Your task to perform on an android device: allow cookies in the chrome app Image 0: 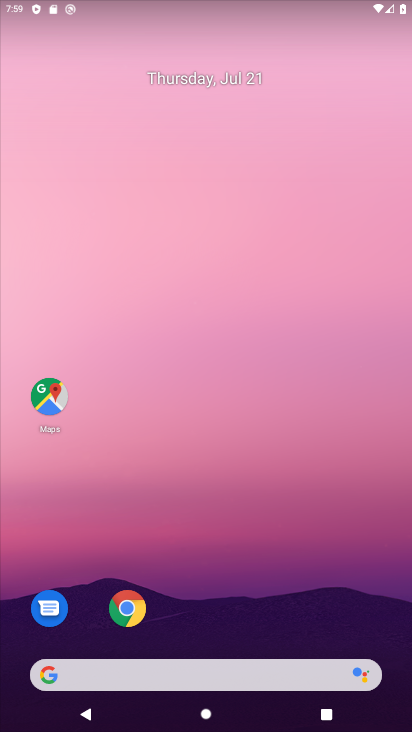
Step 0: click (145, 610)
Your task to perform on an android device: allow cookies in the chrome app Image 1: 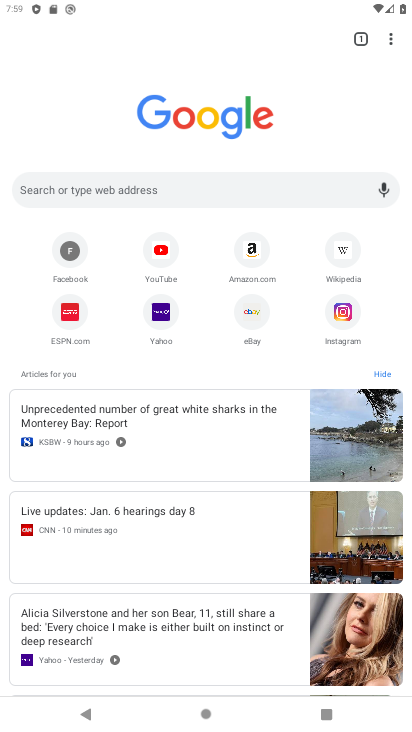
Step 1: click (393, 31)
Your task to perform on an android device: allow cookies in the chrome app Image 2: 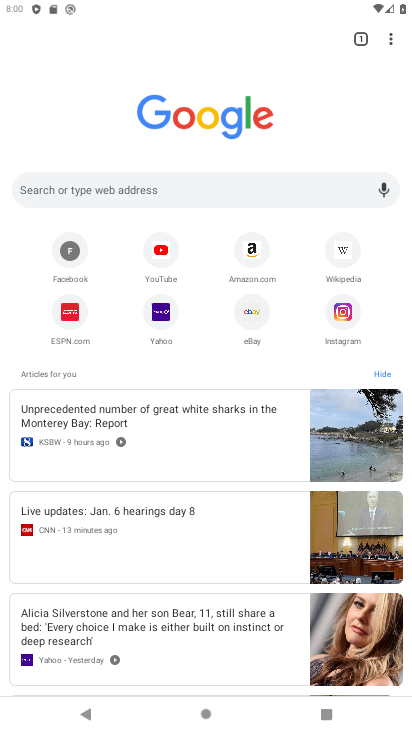
Step 2: click (392, 41)
Your task to perform on an android device: allow cookies in the chrome app Image 3: 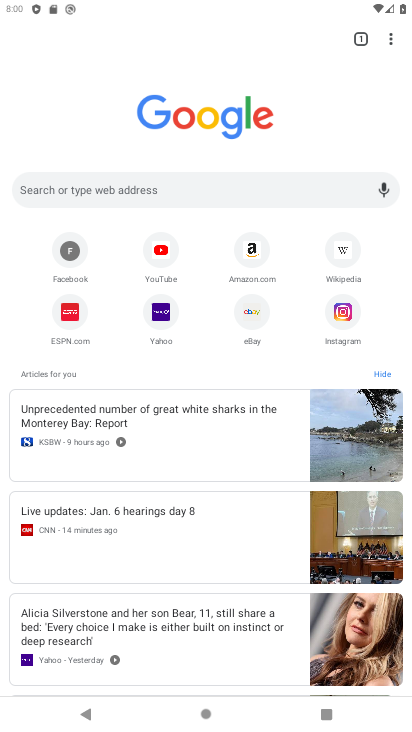
Step 3: click (392, 41)
Your task to perform on an android device: allow cookies in the chrome app Image 4: 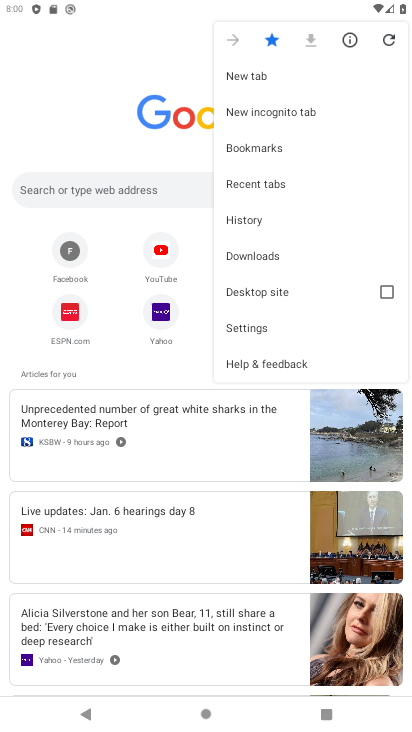
Step 4: click (234, 324)
Your task to perform on an android device: allow cookies in the chrome app Image 5: 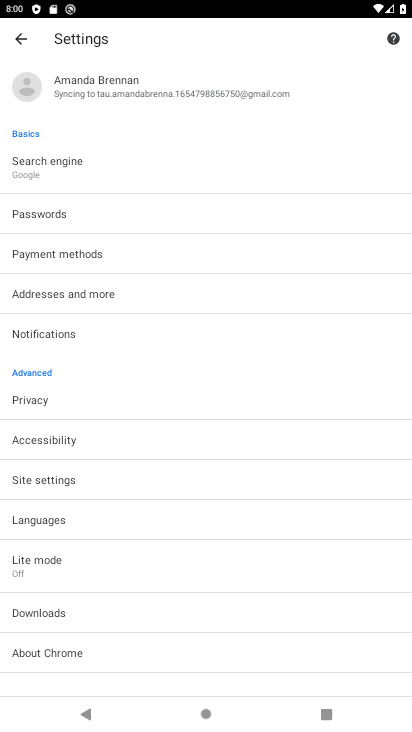
Step 5: click (26, 477)
Your task to perform on an android device: allow cookies in the chrome app Image 6: 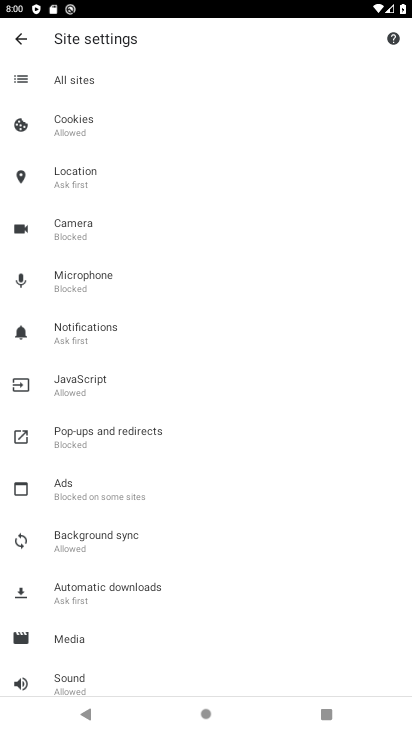
Step 6: click (67, 125)
Your task to perform on an android device: allow cookies in the chrome app Image 7: 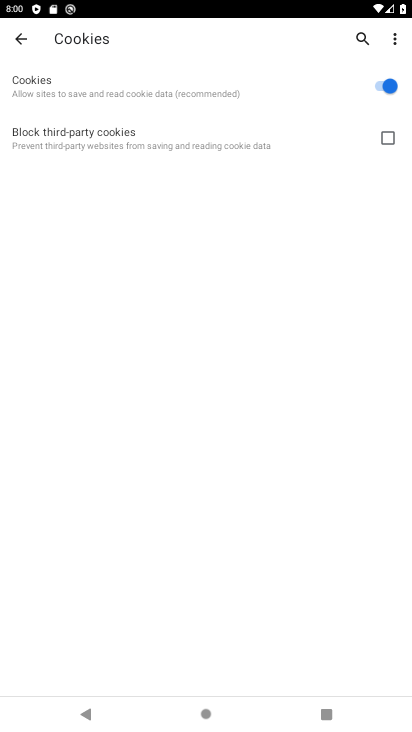
Step 7: task complete